Your task to perform on an android device: turn on notifications settings in the gmail app Image 0: 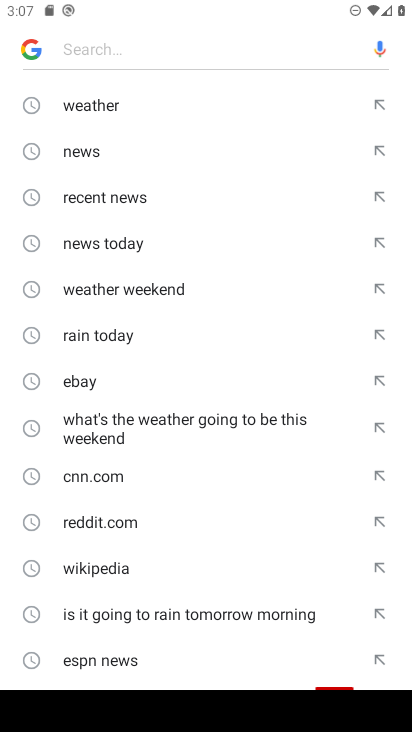
Step 0: press home button
Your task to perform on an android device: turn on notifications settings in the gmail app Image 1: 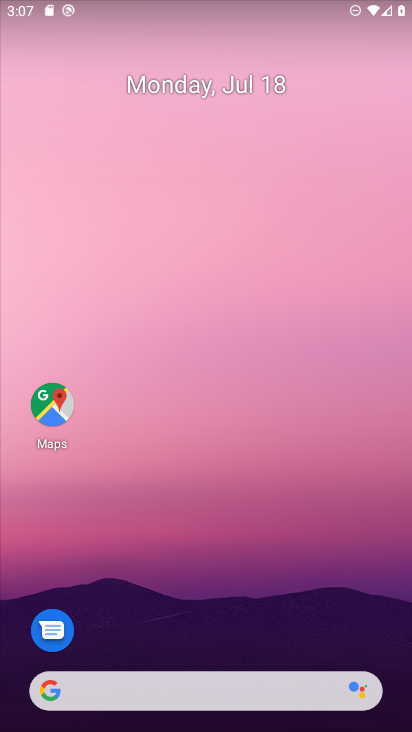
Step 1: drag from (269, 710) to (329, 43)
Your task to perform on an android device: turn on notifications settings in the gmail app Image 2: 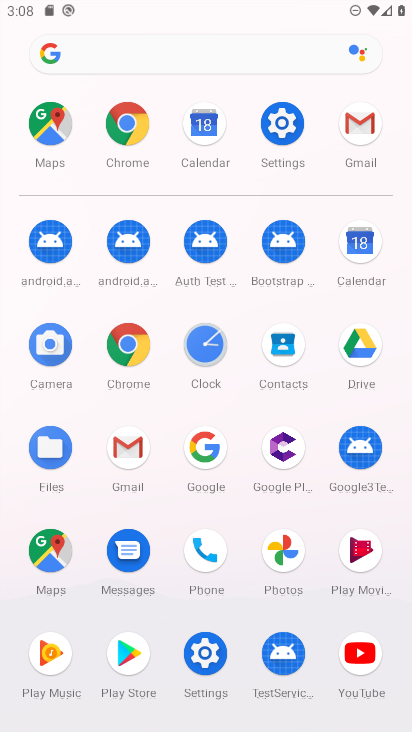
Step 2: click (136, 438)
Your task to perform on an android device: turn on notifications settings in the gmail app Image 3: 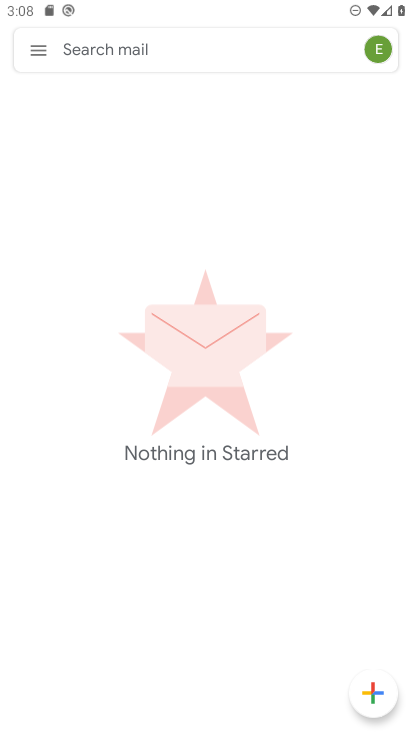
Step 3: click (33, 44)
Your task to perform on an android device: turn on notifications settings in the gmail app Image 4: 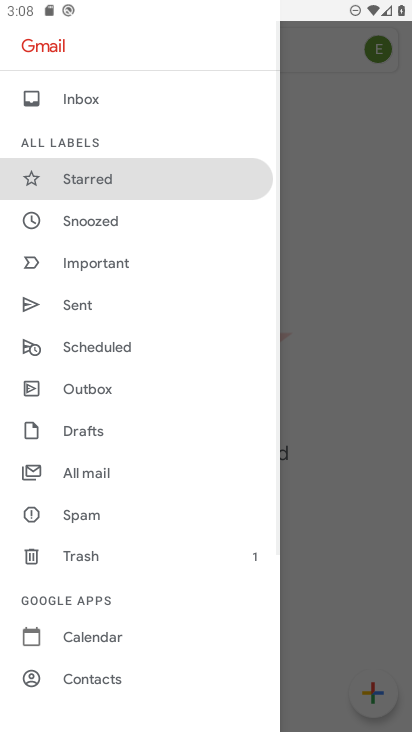
Step 4: drag from (115, 667) to (158, 244)
Your task to perform on an android device: turn on notifications settings in the gmail app Image 5: 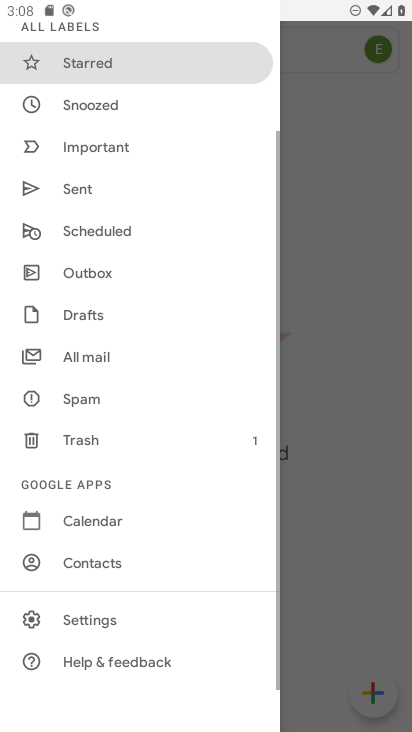
Step 5: click (114, 625)
Your task to perform on an android device: turn on notifications settings in the gmail app Image 6: 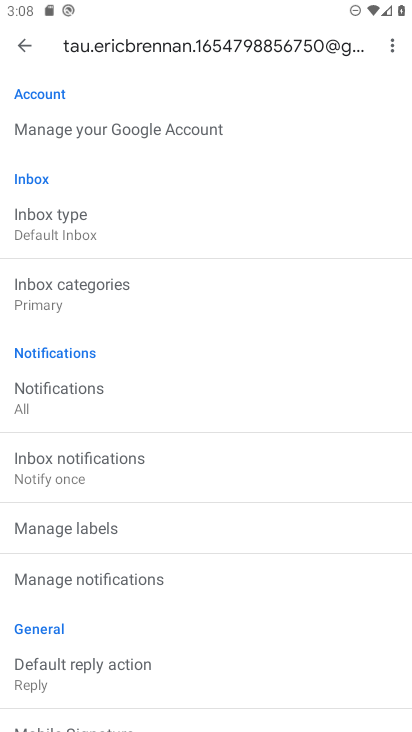
Step 6: click (132, 571)
Your task to perform on an android device: turn on notifications settings in the gmail app Image 7: 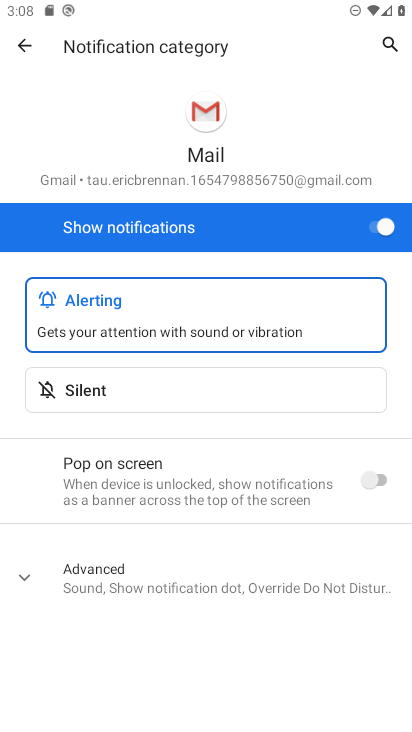
Step 7: task complete